Your task to perform on an android device: Go to battery settings Image 0: 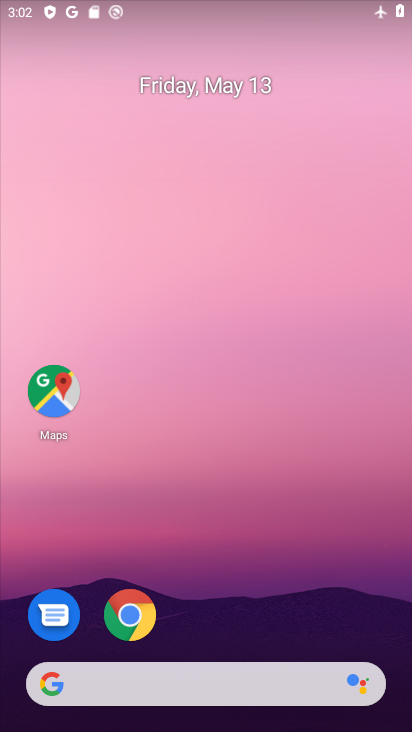
Step 0: press home button
Your task to perform on an android device: Go to battery settings Image 1: 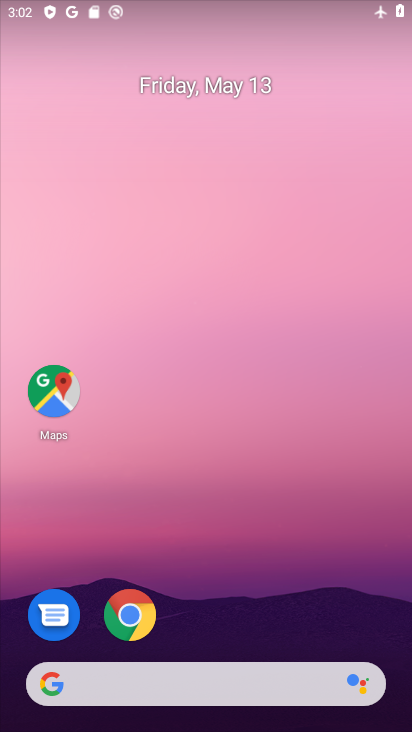
Step 1: drag from (228, 684) to (317, 234)
Your task to perform on an android device: Go to battery settings Image 2: 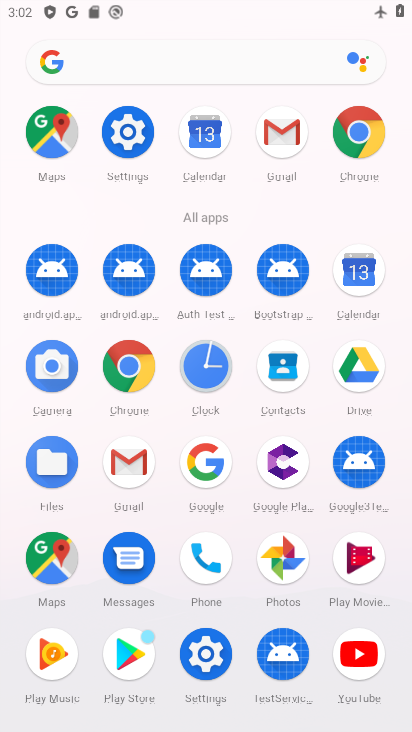
Step 2: click (129, 136)
Your task to perform on an android device: Go to battery settings Image 3: 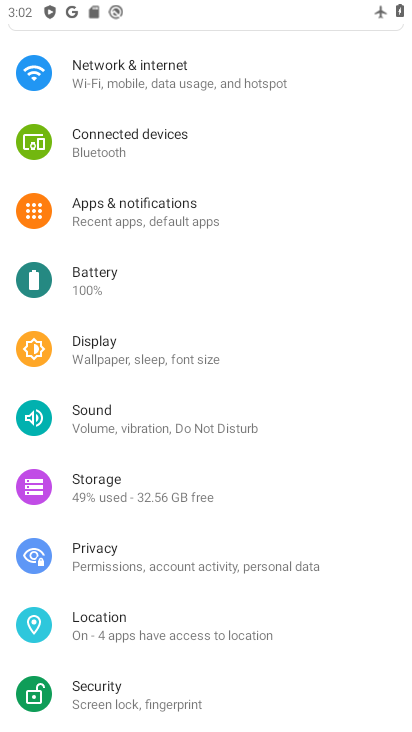
Step 3: click (105, 281)
Your task to perform on an android device: Go to battery settings Image 4: 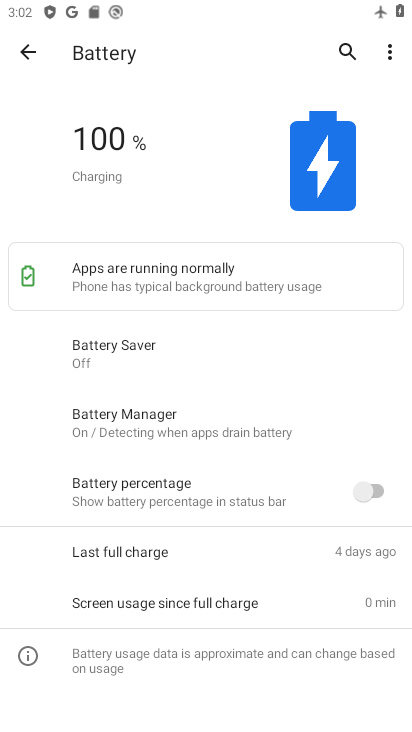
Step 4: task complete